Your task to perform on an android device: allow notifications from all sites in the chrome app Image 0: 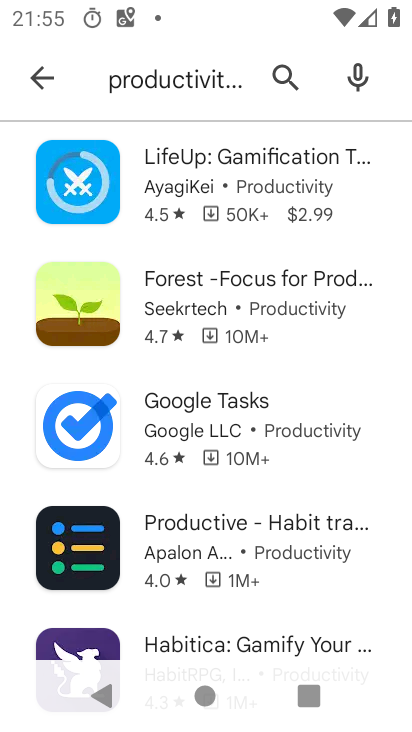
Step 0: press home button
Your task to perform on an android device: allow notifications from all sites in the chrome app Image 1: 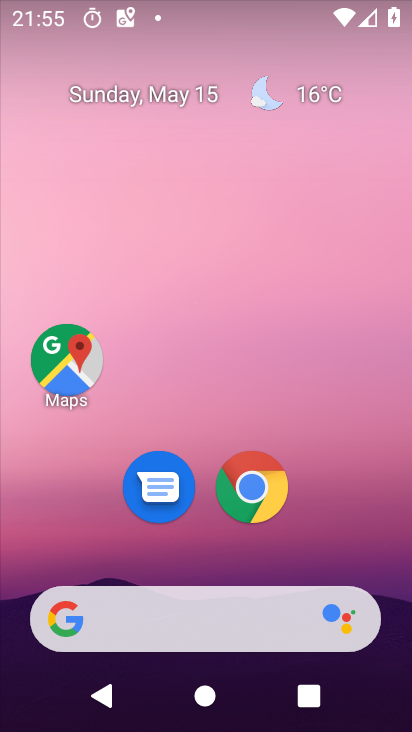
Step 1: click (246, 479)
Your task to perform on an android device: allow notifications from all sites in the chrome app Image 2: 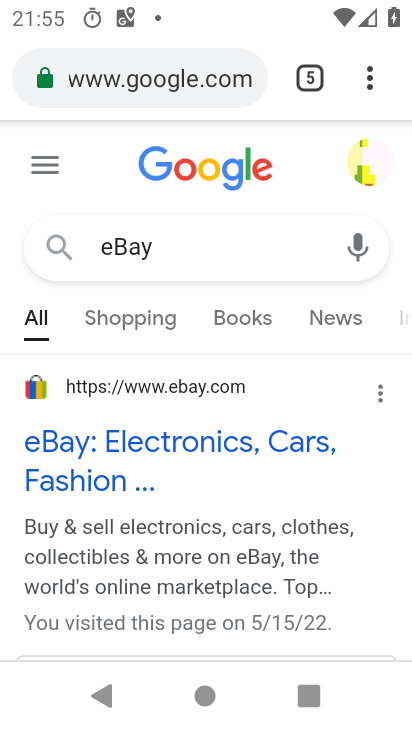
Step 2: click (368, 71)
Your task to perform on an android device: allow notifications from all sites in the chrome app Image 3: 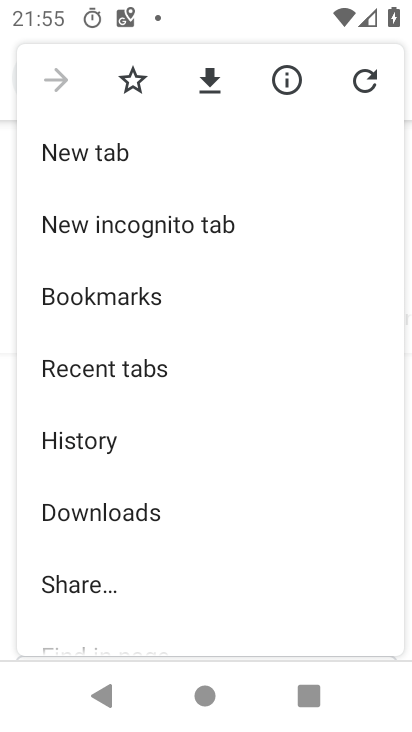
Step 3: drag from (264, 606) to (273, 366)
Your task to perform on an android device: allow notifications from all sites in the chrome app Image 4: 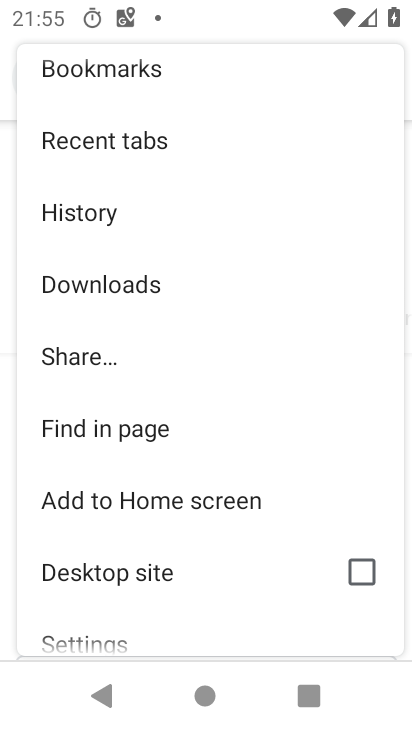
Step 4: drag from (298, 601) to (297, 314)
Your task to perform on an android device: allow notifications from all sites in the chrome app Image 5: 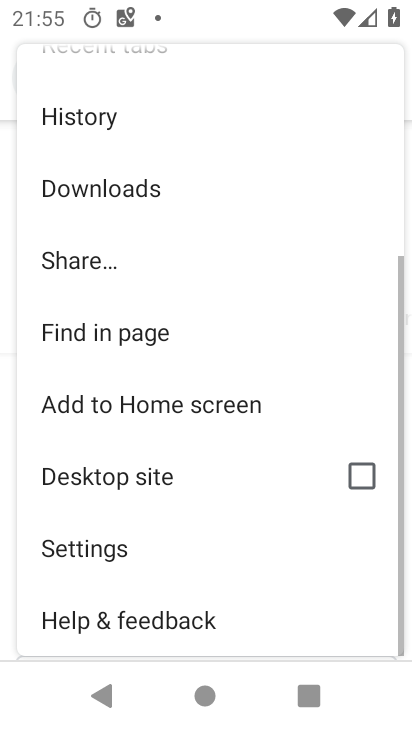
Step 5: click (90, 542)
Your task to perform on an android device: allow notifications from all sites in the chrome app Image 6: 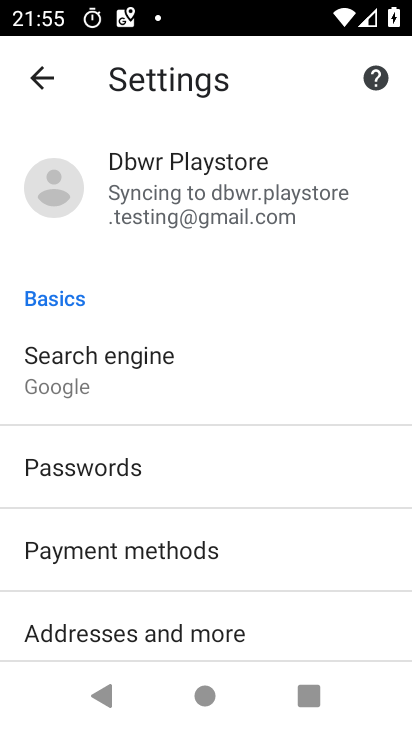
Step 6: drag from (307, 351) to (300, 315)
Your task to perform on an android device: allow notifications from all sites in the chrome app Image 7: 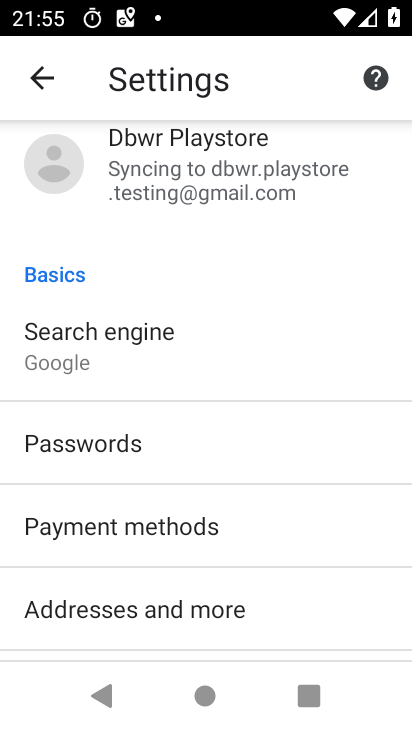
Step 7: drag from (331, 612) to (307, 317)
Your task to perform on an android device: allow notifications from all sites in the chrome app Image 8: 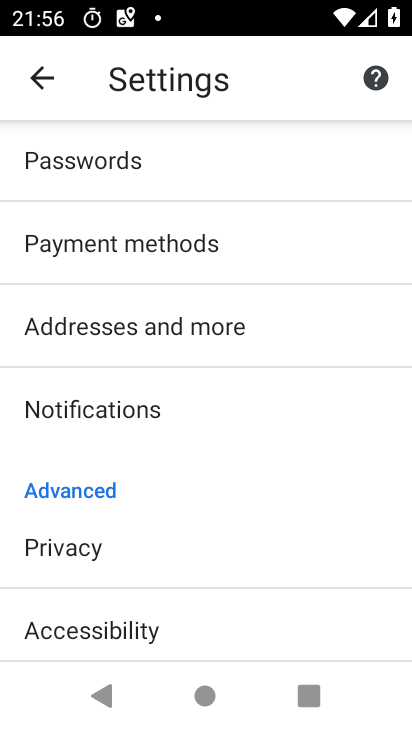
Step 8: drag from (296, 616) to (241, 335)
Your task to perform on an android device: allow notifications from all sites in the chrome app Image 9: 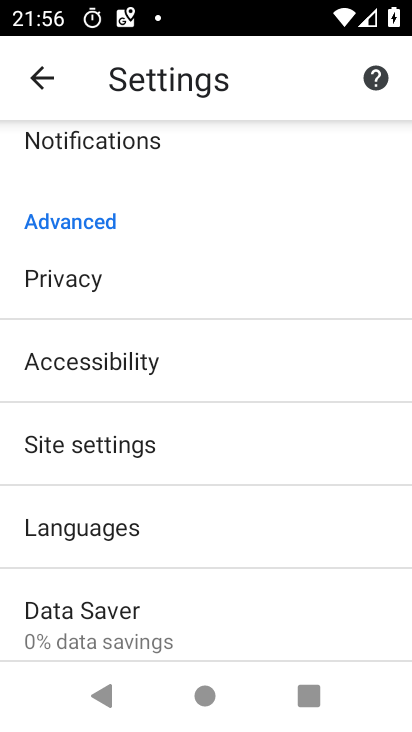
Step 9: drag from (285, 616) to (257, 309)
Your task to perform on an android device: allow notifications from all sites in the chrome app Image 10: 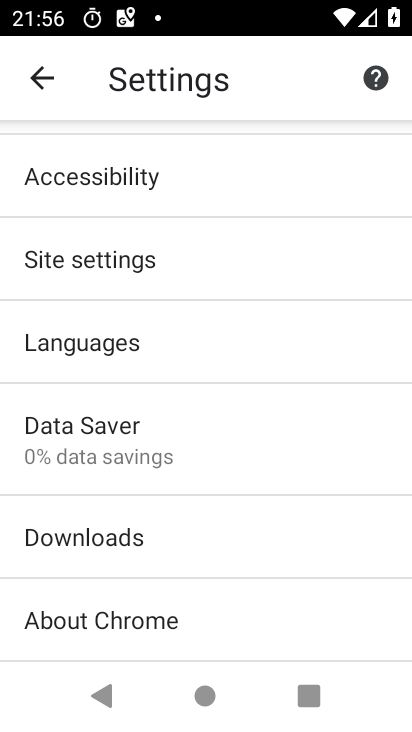
Step 10: drag from (274, 200) to (260, 429)
Your task to perform on an android device: allow notifications from all sites in the chrome app Image 11: 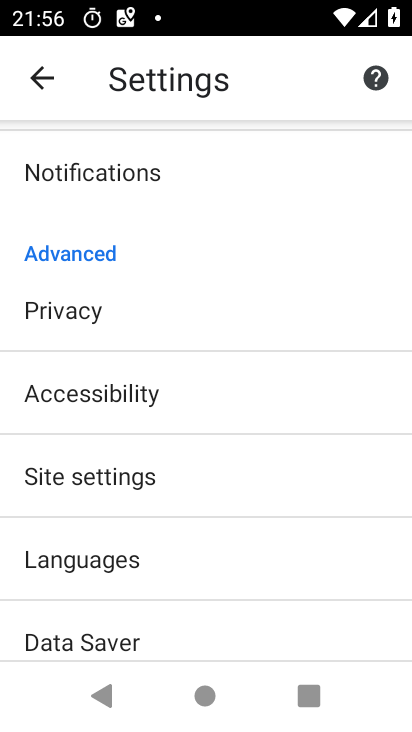
Step 11: click (88, 480)
Your task to perform on an android device: allow notifications from all sites in the chrome app Image 12: 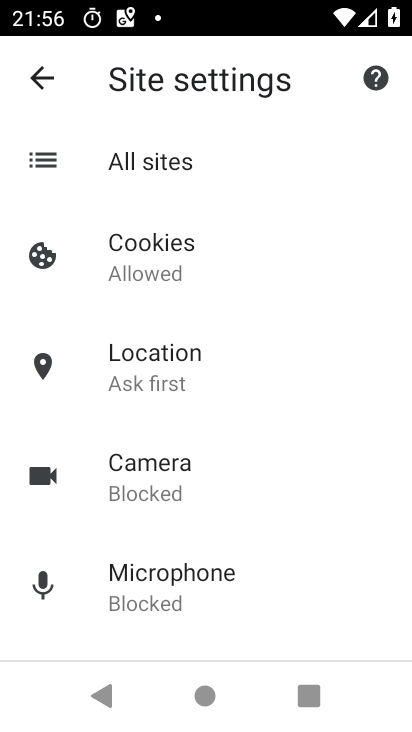
Step 12: drag from (312, 598) to (292, 298)
Your task to perform on an android device: allow notifications from all sites in the chrome app Image 13: 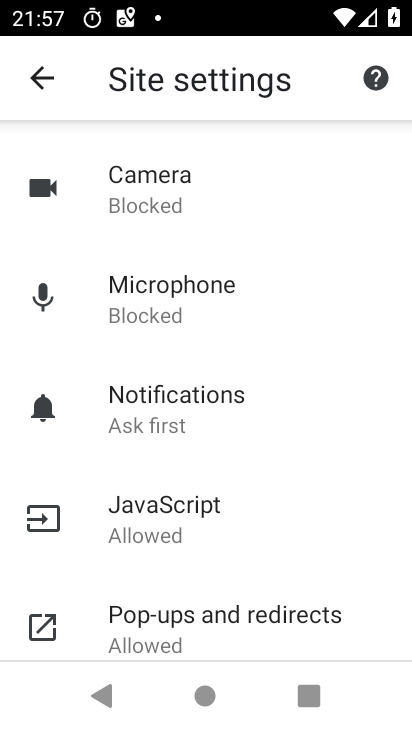
Step 13: click (151, 416)
Your task to perform on an android device: allow notifications from all sites in the chrome app Image 14: 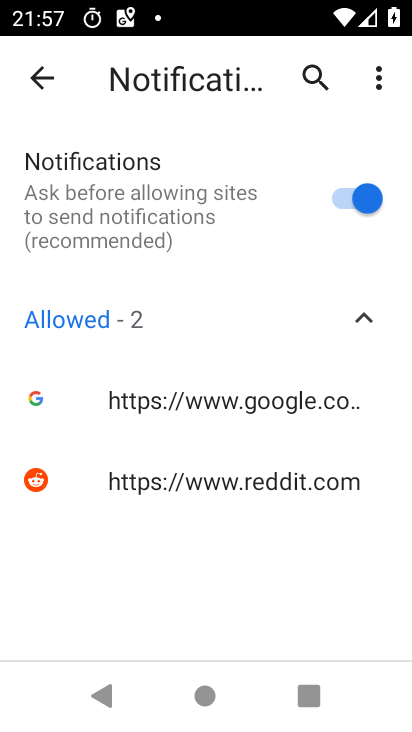
Step 14: task complete